Your task to perform on an android device: Open Google Chrome Image 0: 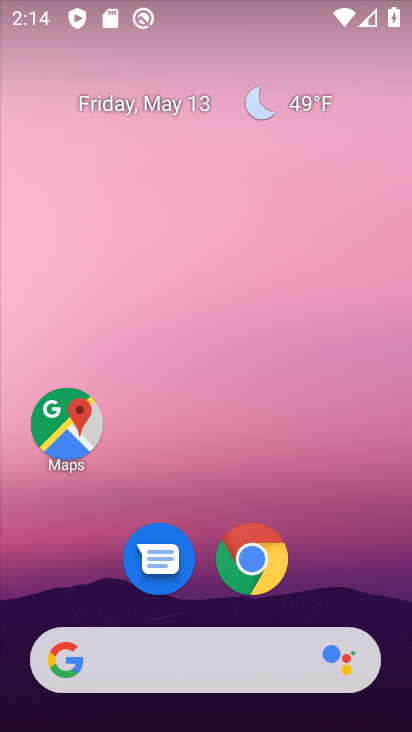
Step 0: click (257, 559)
Your task to perform on an android device: Open Google Chrome Image 1: 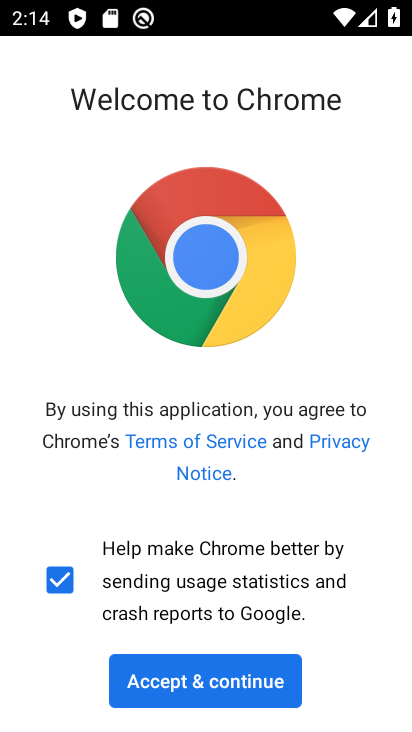
Step 1: click (215, 680)
Your task to perform on an android device: Open Google Chrome Image 2: 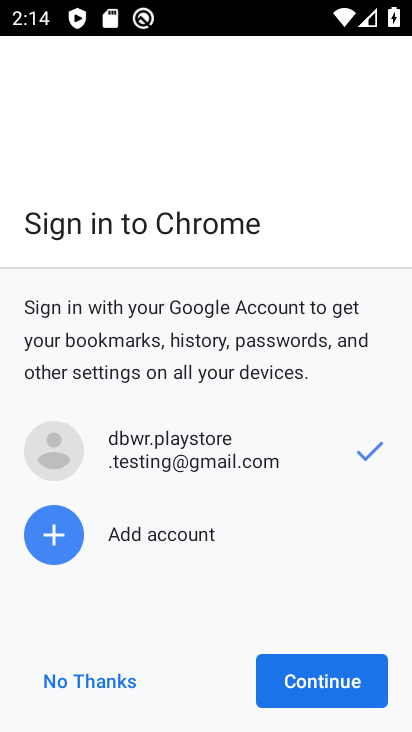
Step 2: click (319, 679)
Your task to perform on an android device: Open Google Chrome Image 3: 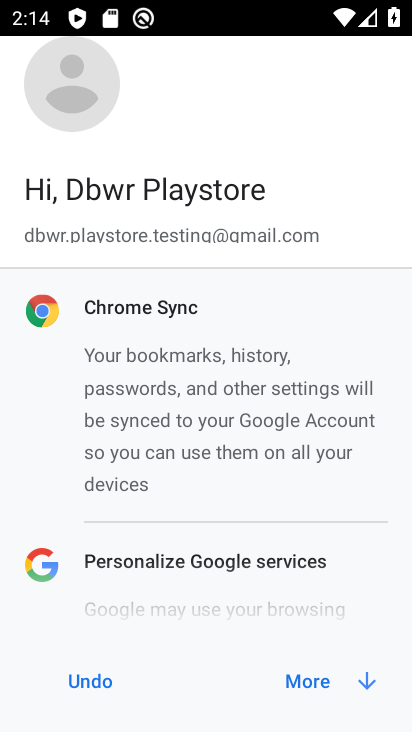
Step 3: click (319, 679)
Your task to perform on an android device: Open Google Chrome Image 4: 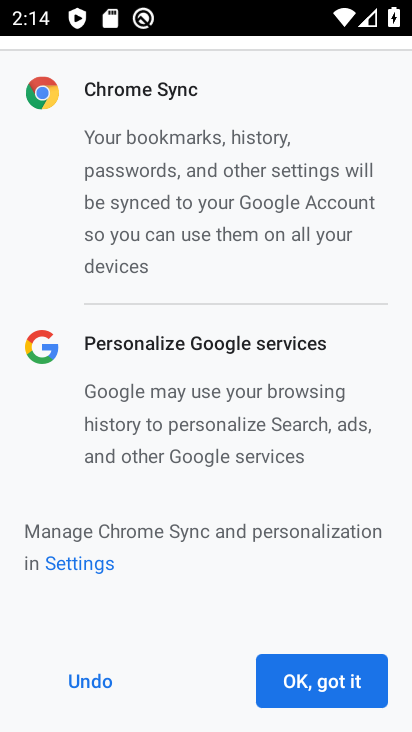
Step 4: click (319, 679)
Your task to perform on an android device: Open Google Chrome Image 5: 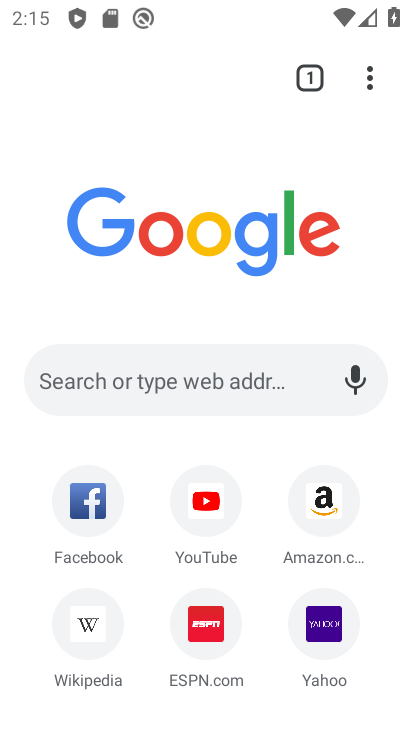
Step 5: task complete